Your task to perform on an android device: Open the calendar and show me this week's events? Image 0: 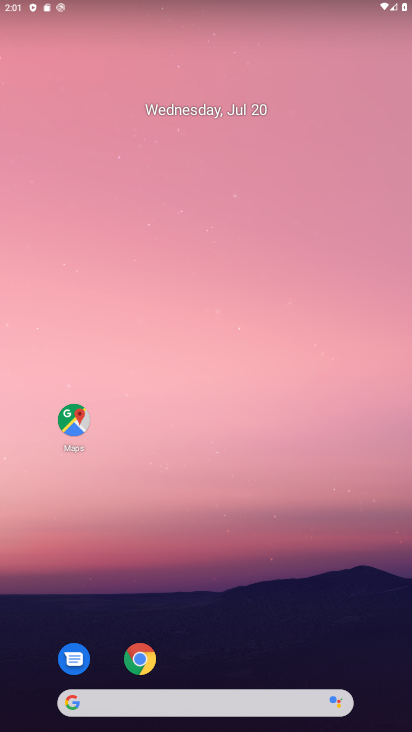
Step 0: drag from (247, 653) to (257, 129)
Your task to perform on an android device: Open the calendar and show me this week's events? Image 1: 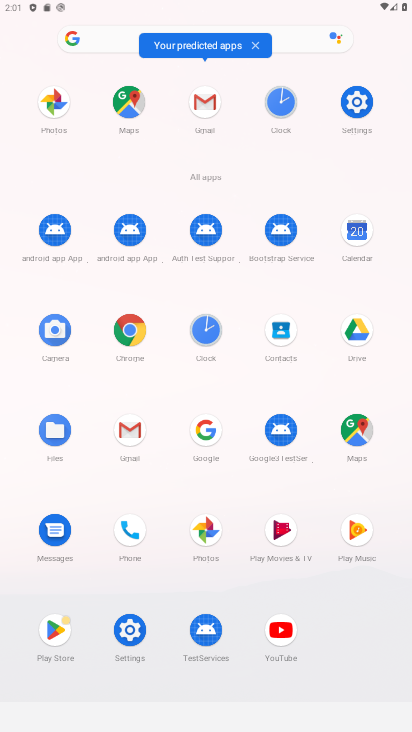
Step 1: click (358, 237)
Your task to perform on an android device: Open the calendar and show me this week's events? Image 2: 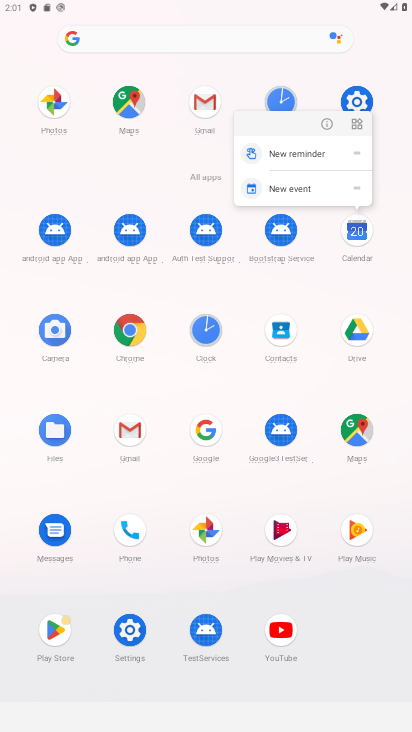
Step 2: click (357, 237)
Your task to perform on an android device: Open the calendar and show me this week's events? Image 3: 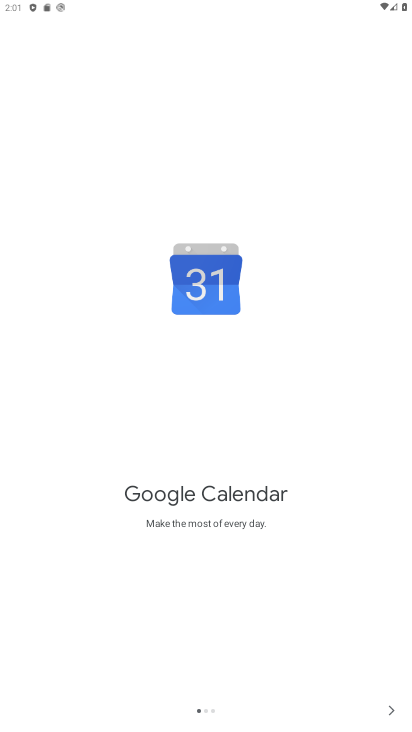
Step 3: click (389, 710)
Your task to perform on an android device: Open the calendar and show me this week's events? Image 4: 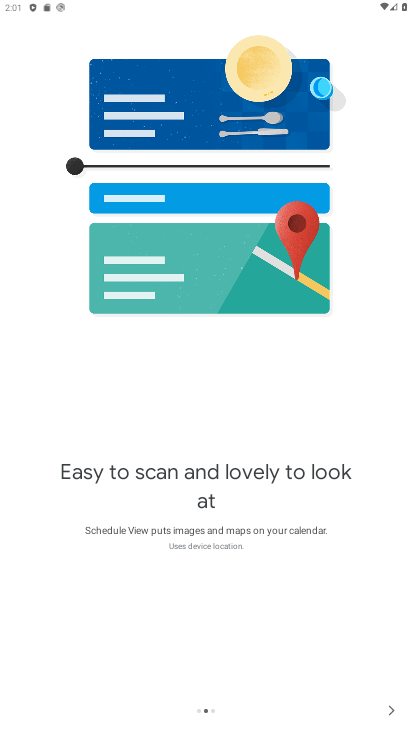
Step 4: click (389, 710)
Your task to perform on an android device: Open the calendar and show me this week's events? Image 5: 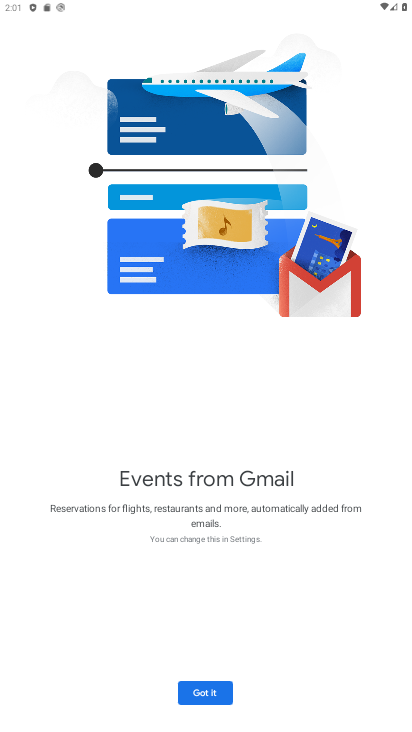
Step 5: click (197, 693)
Your task to perform on an android device: Open the calendar and show me this week's events? Image 6: 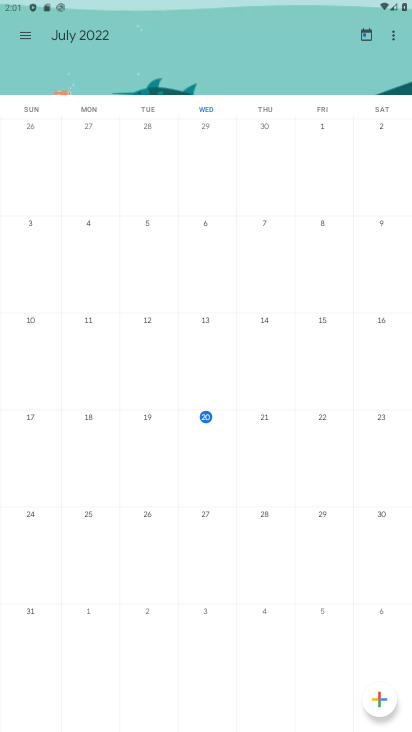
Step 6: click (26, 34)
Your task to perform on an android device: Open the calendar and show me this week's events? Image 7: 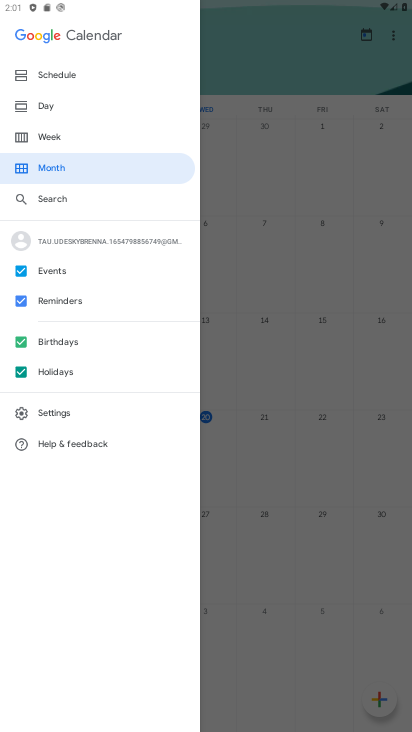
Step 7: click (48, 130)
Your task to perform on an android device: Open the calendar and show me this week's events? Image 8: 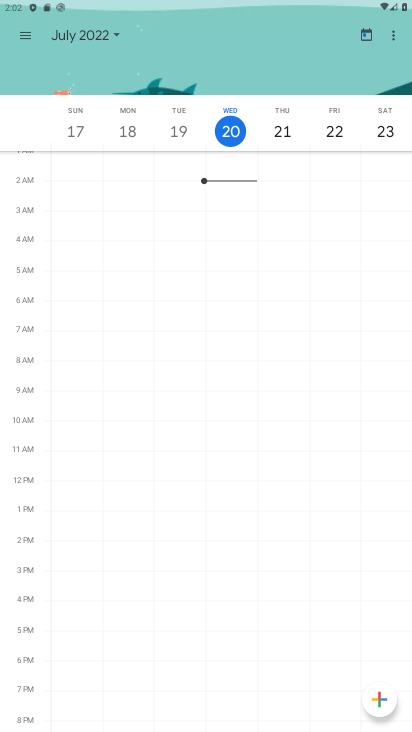
Step 8: task complete